Your task to perform on an android device: Open Android settings Image 0: 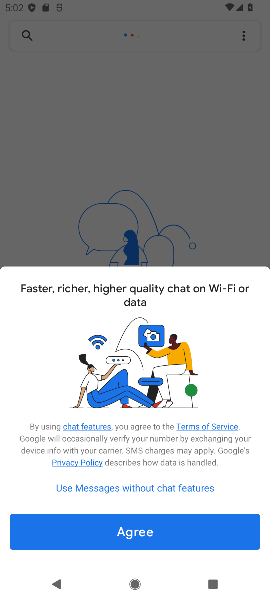
Step 0: press home button
Your task to perform on an android device: Open Android settings Image 1: 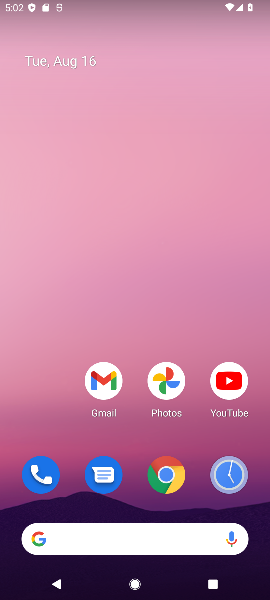
Step 1: drag from (207, 497) to (122, 41)
Your task to perform on an android device: Open Android settings Image 2: 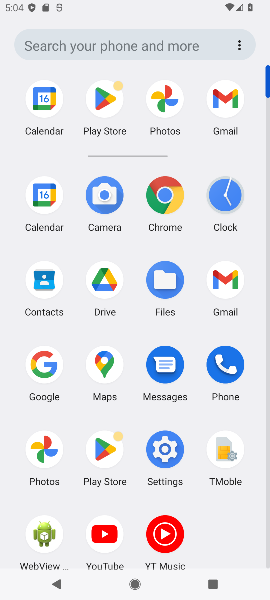
Step 2: click (165, 442)
Your task to perform on an android device: Open Android settings Image 3: 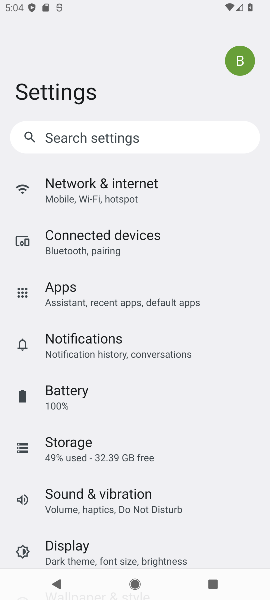
Step 3: task complete